Your task to perform on an android device: change timer sound Image 0: 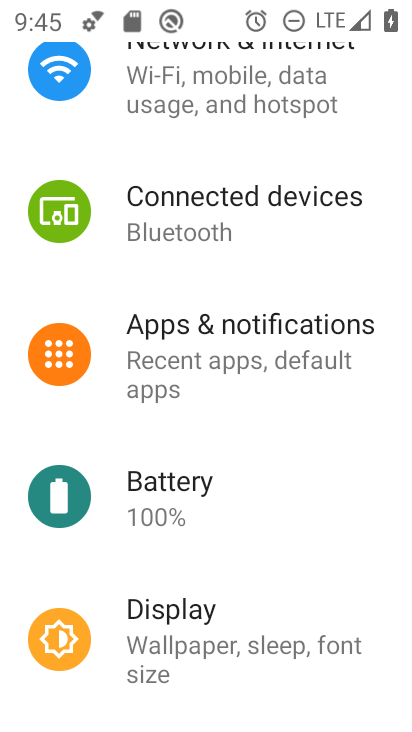
Step 0: press home button
Your task to perform on an android device: change timer sound Image 1: 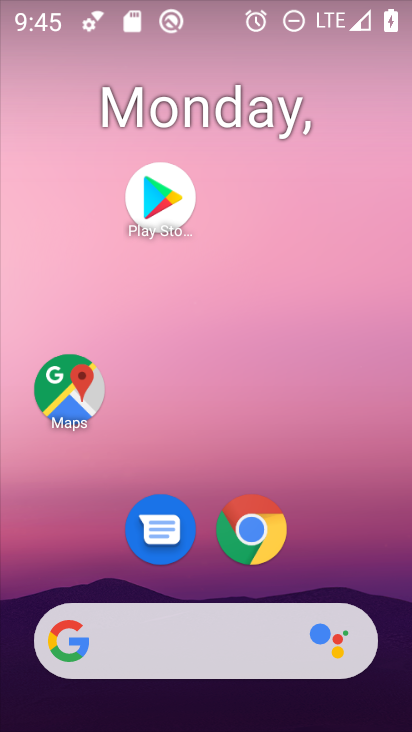
Step 1: drag from (317, 450) to (232, 129)
Your task to perform on an android device: change timer sound Image 2: 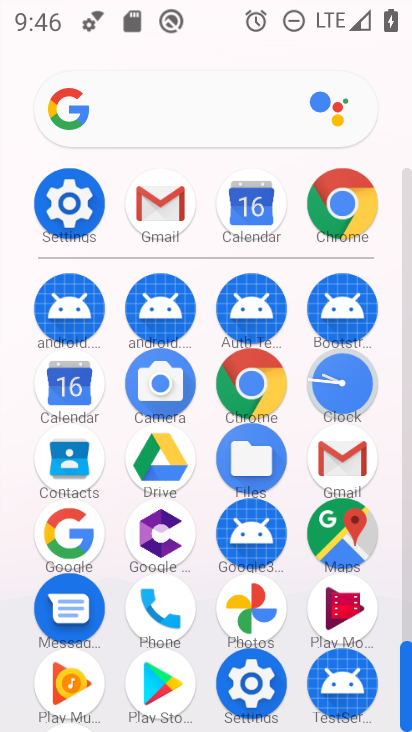
Step 2: click (330, 375)
Your task to perform on an android device: change timer sound Image 3: 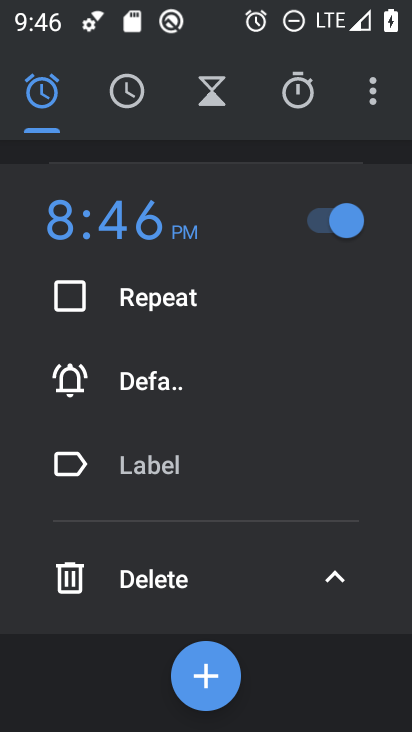
Step 3: click (370, 83)
Your task to perform on an android device: change timer sound Image 4: 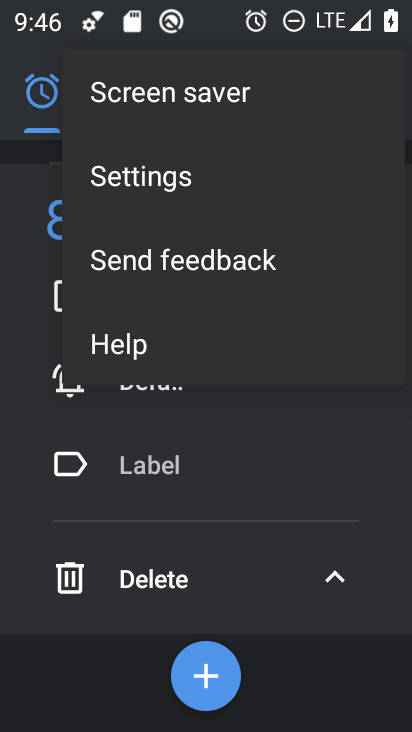
Step 4: click (147, 173)
Your task to perform on an android device: change timer sound Image 5: 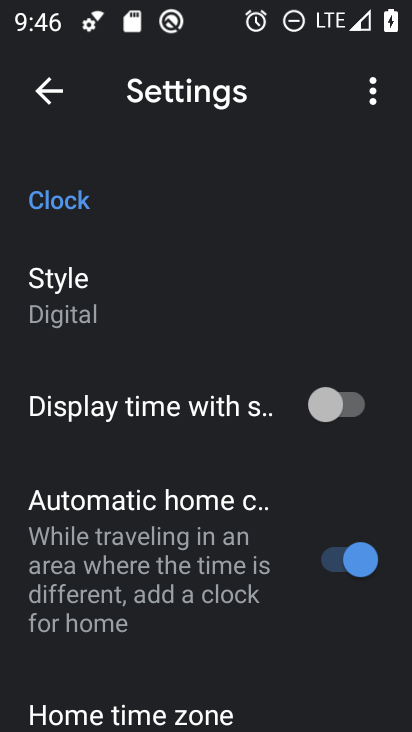
Step 5: drag from (273, 615) to (206, 228)
Your task to perform on an android device: change timer sound Image 6: 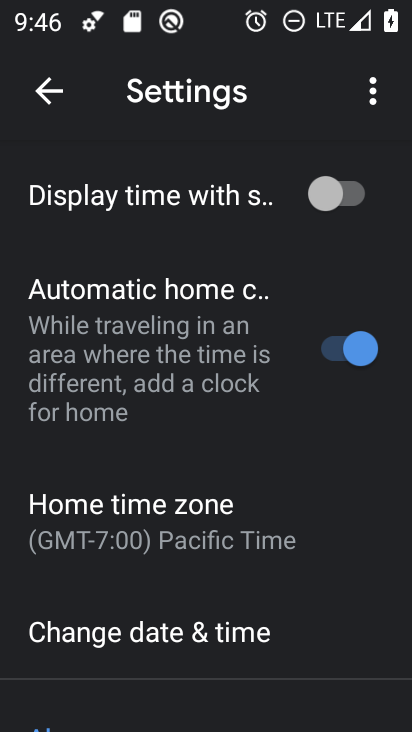
Step 6: drag from (233, 553) to (200, 308)
Your task to perform on an android device: change timer sound Image 7: 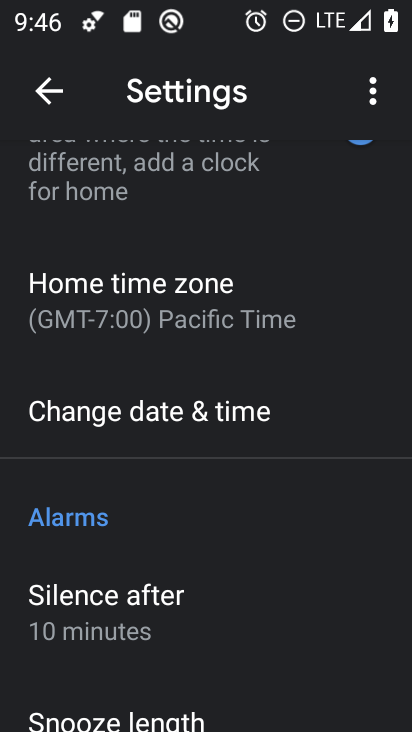
Step 7: drag from (200, 533) to (129, 240)
Your task to perform on an android device: change timer sound Image 8: 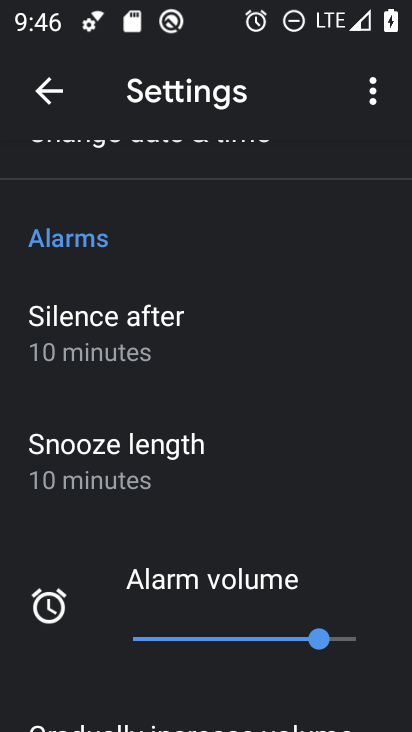
Step 8: drag from (200, 515) to (160, 269)
Your task to perform on an android device: change timer sound Image 9: 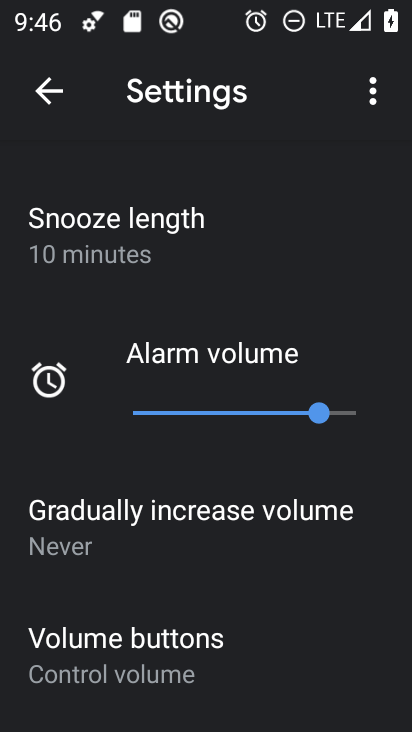
Step 9: drag from (219, 554) to (190, 286)
Your task to perform on an android device: change timer sound Image 10: 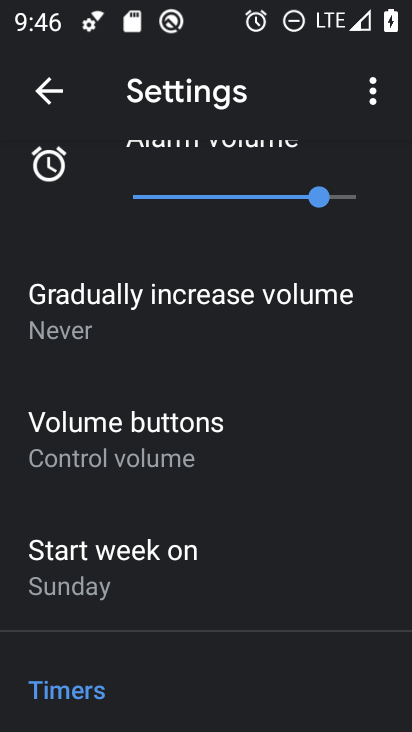
Step 10: drag from (257, 522) to (204, 186)
Your task to perform on an android device: change timer sound Image 11: 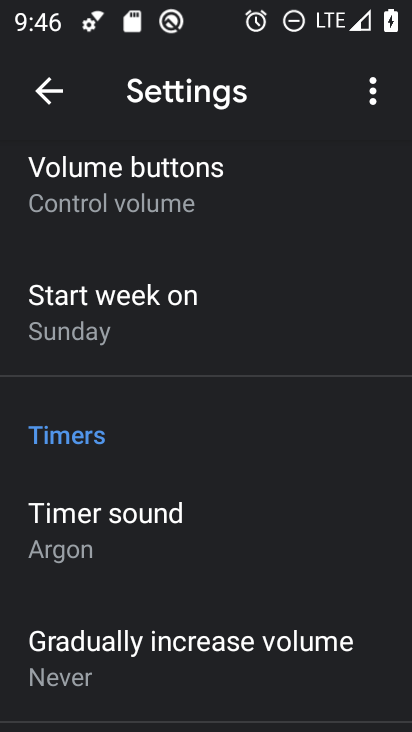
Step 11: click (136, 498)
Your task to perform on an android device: change timer sound Image 12: 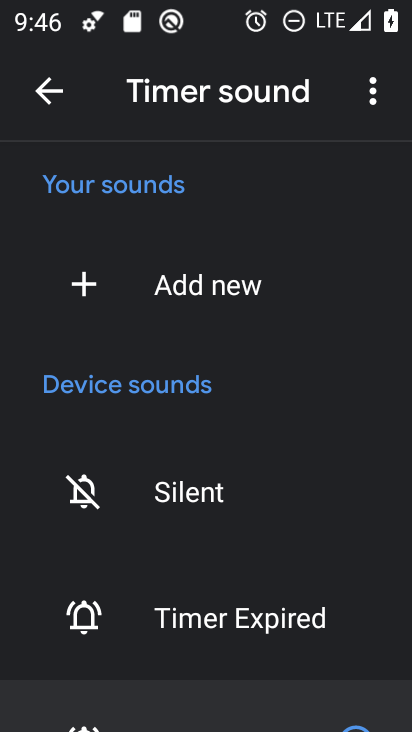
Step 12: task complete